Your task to perform on an android device: add a label to a message in the gmail app Image 0: 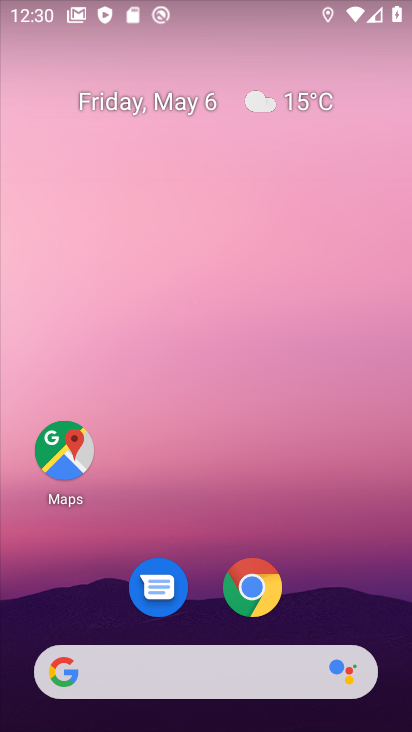
Step 0: drag from (330, 614) to (303, 0)
Your task to perform on an android device: add a label to a message in the gmail app Image 1: 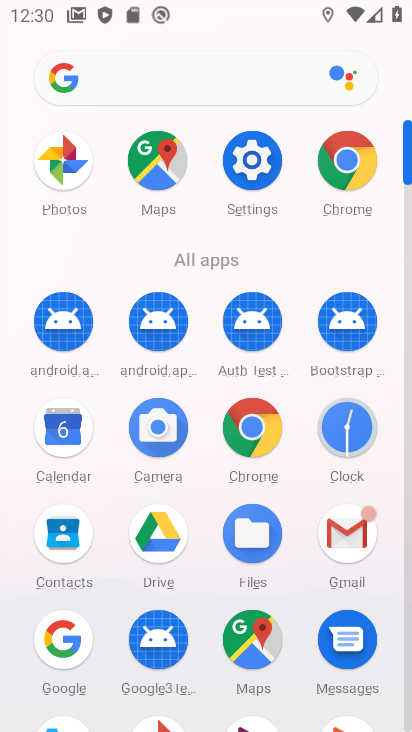
Step 1: click (346, 531)
Your task to perform on an android device: add a label to a message in the gmail app Image 2: 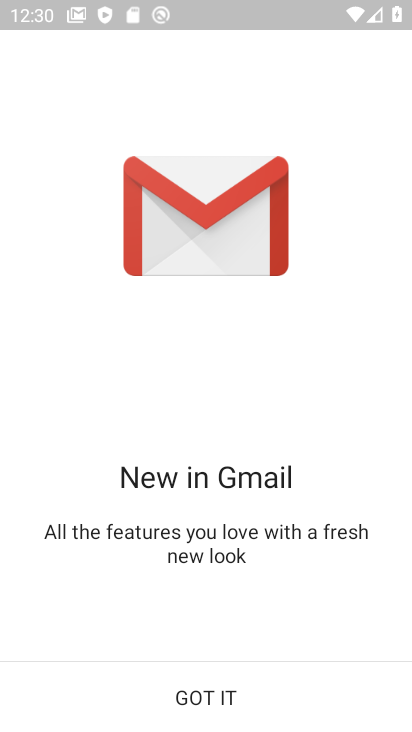
Step 2: click (212, 697)
Your task to perform on an android device: add a label to a message in the gmail app Image 3: 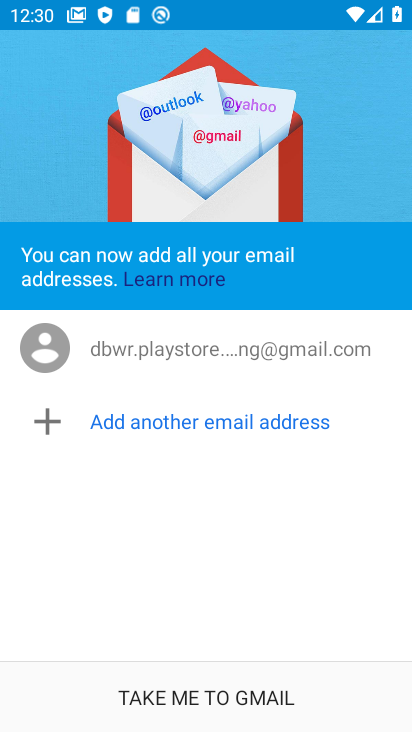
Step 3: click (196, 695)
Your task to perform on an android device: add a label to a message in the gmail app Image 4: 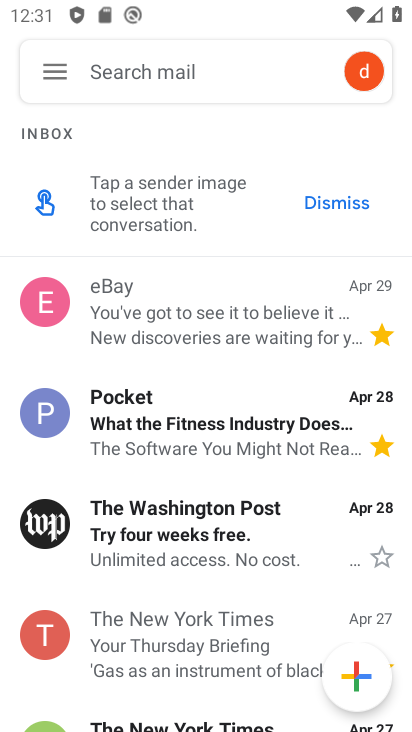
Step 4: click (166, 308)
Your task to perform on an android device: add a label to a message in the gmail app Image 5: 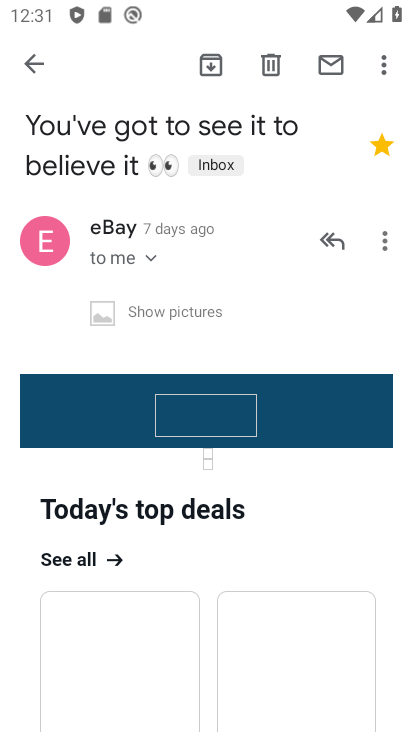
Step 5: click (32, 71)
Your task to perform on an android device: add a label to a message in the gmail app Image 6: 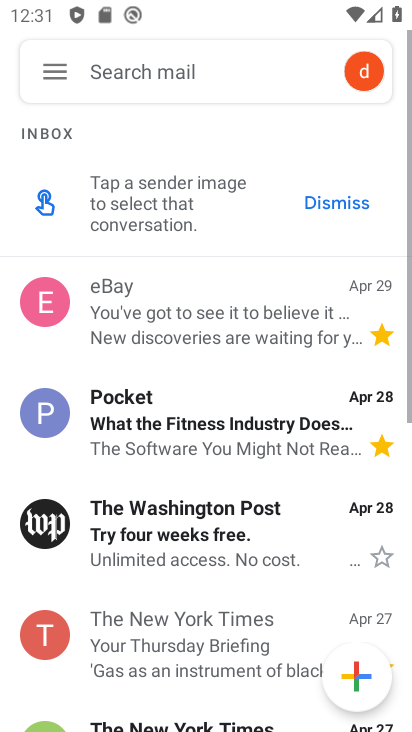
Step 6: drag from (254, 506) to (270, 317)
Your task to perform on an android device: add a label to a message in the gmail app Image 7: 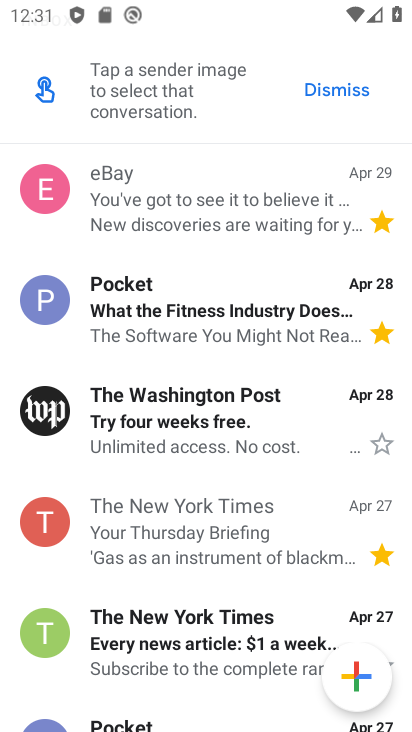
Step 7: click (219, 367)
Your task to perform on an android device: add a label to a message in the gmail app Image 8: 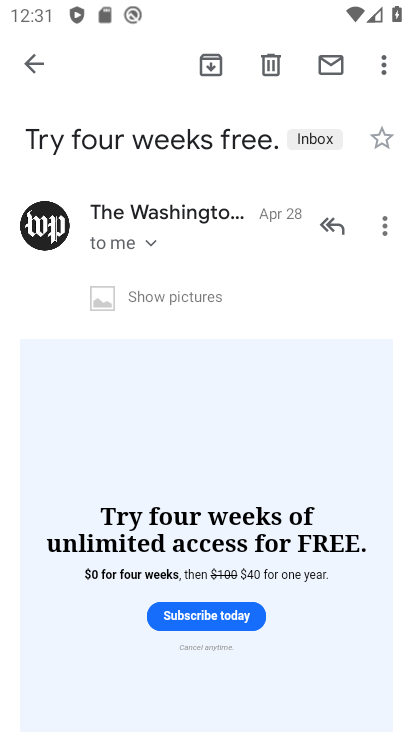
Step 8: click (34, 66)
Your task to perform on an android device: add a label to a message in the gmail app Image 9: 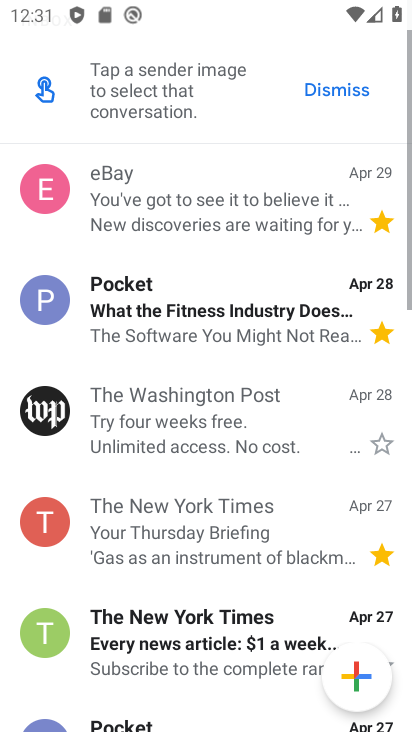
Step 9: drag from (152, 592) to (235, 220)
Your task to perform on an android device: add a label to a message in the gmail app Image 10: 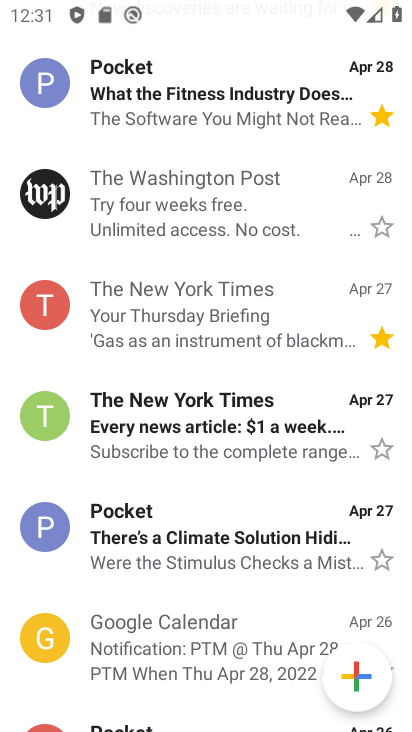
Step 10: click (172, 645)
Your task to perform on an android device: add a label to a message in the gmail app Image 11: 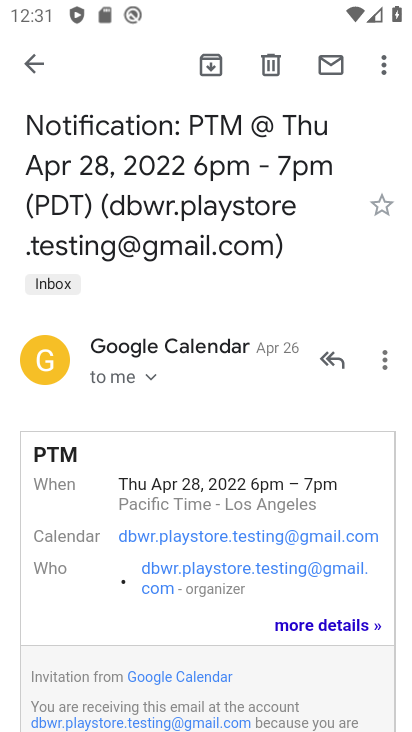
Step 11: click (23, 64)
Your task to perform on an android device: add a label to a message in the gmail app Image 12: 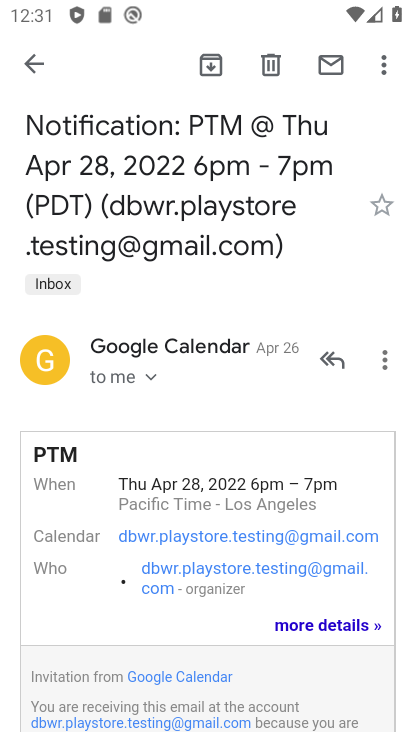
Step 12: click (32, 65)
Your task to perform on an android device: add a label to a message in the gmail app Image 13: 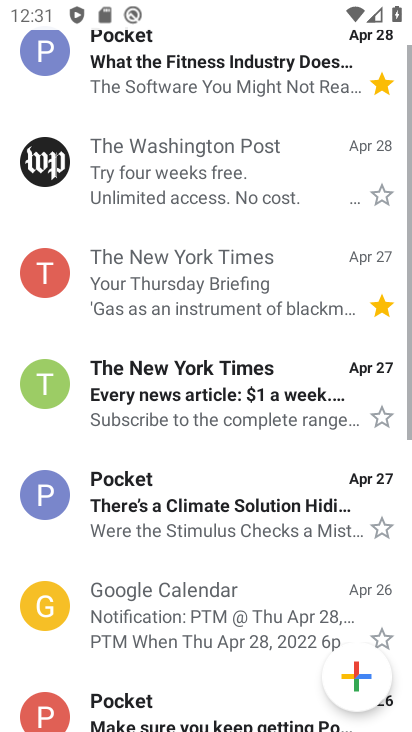
Step 13: drag from (187, 597) to (253, 133)
Your task to perform on an android device: add a label to a message in the gmail app Image 14: 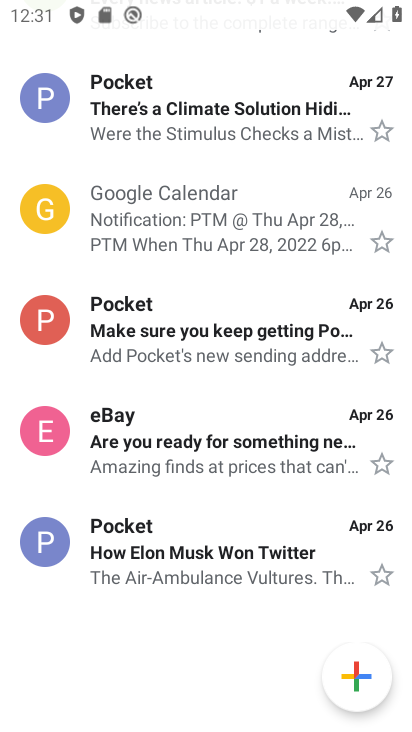
Step 14: click (176, 212)
Your task to perform on an android device: add a label to a message in the gmail app Image 15: 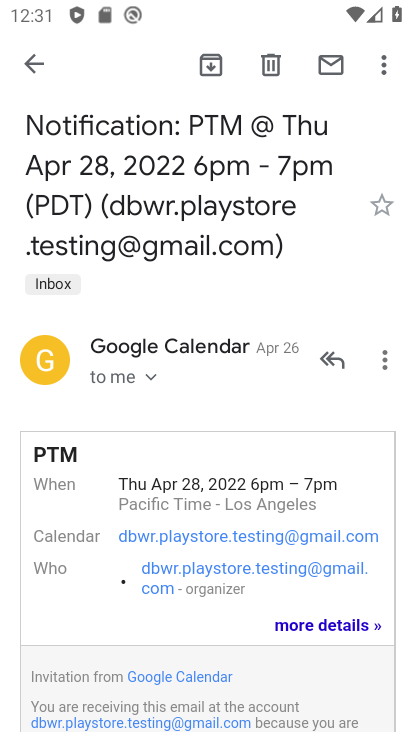
Step 15: click (29, 66)
Your task to perform on an android device: add a label to a message in the gmail app Image 16: 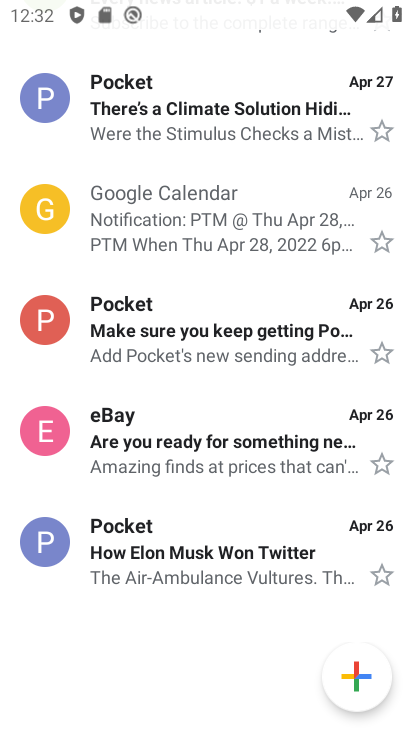
Step 16: click (163, 333)
Your task to perform on an android device: add a label to a message in the gmail app Image 17: 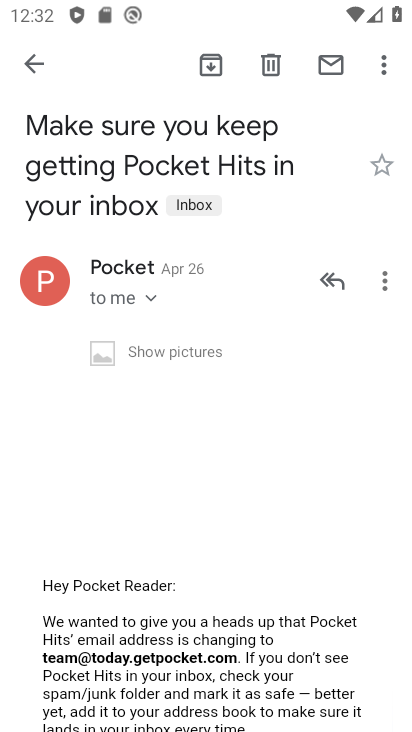
Step 17: click (27, 53)
Your task to perform on an android device: add a label to a message in the gmail app Image 18: 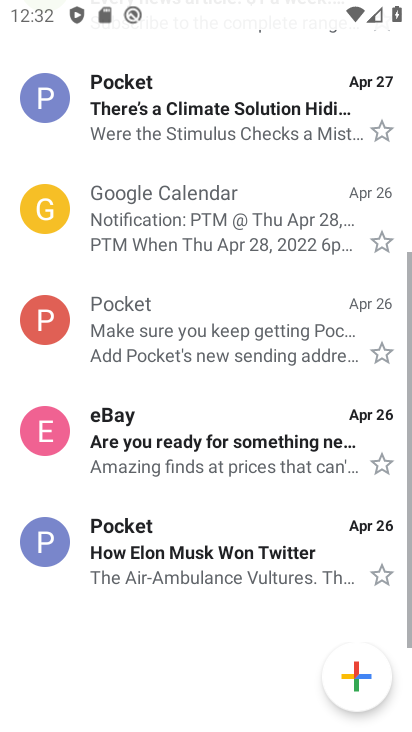
Step 18: click (171, 455)
Your task to perform on an android device: add a label to a message in the gmail app Image 19: 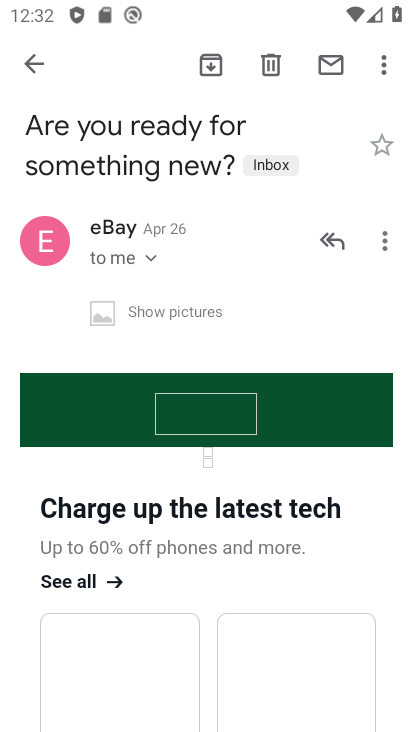
Step 19: click (31, 64)
Your task to perform on an android device: add a label to a message in the gmail app Image 20: 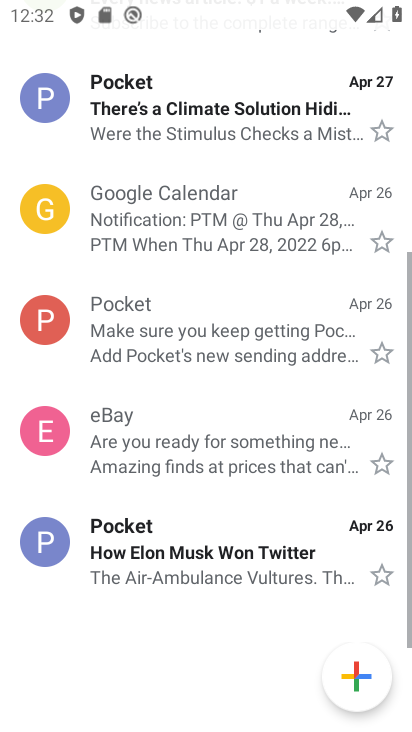
Step 20: click (125, 545)
Your task to perform on an android device: add a label to a message in the gmail app Image 21: 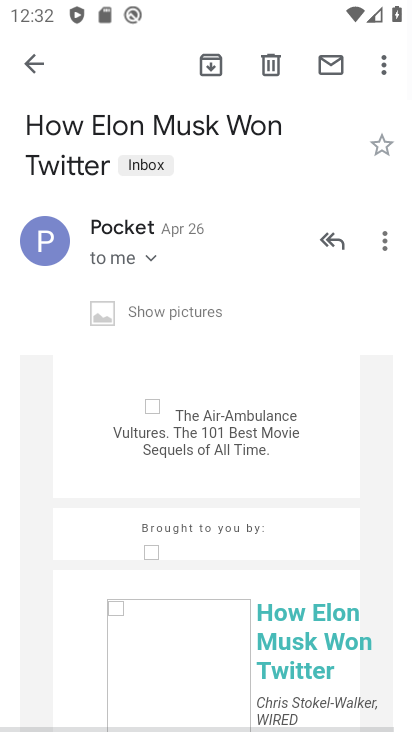
Step 21: click (27, 58)
Your task to perform on an android device: add a label to a message in the gmail app Image 22: 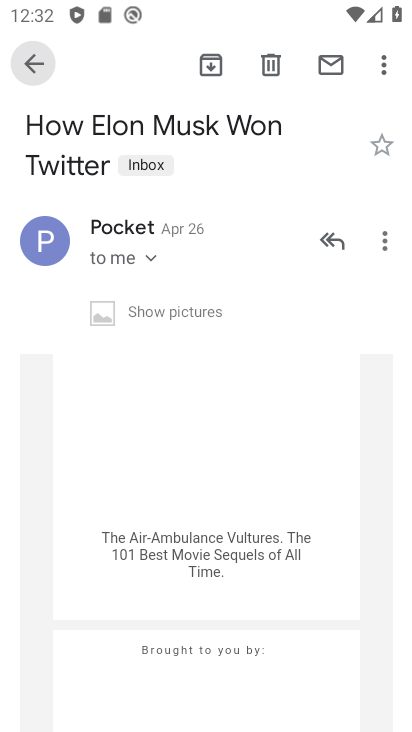
Step 22: click (27, 58)
Your task to perform on an android device: add a label to a message in the gmail app Image 23: 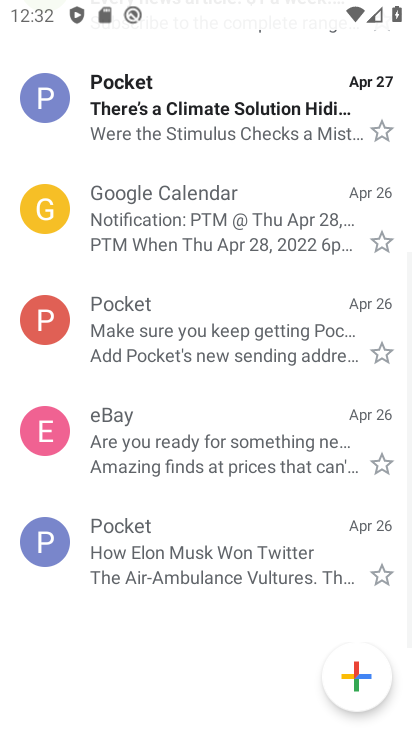
Step 23: press back button
Your task to perform on an android device: add a label to a message in the gmail app Image 24: 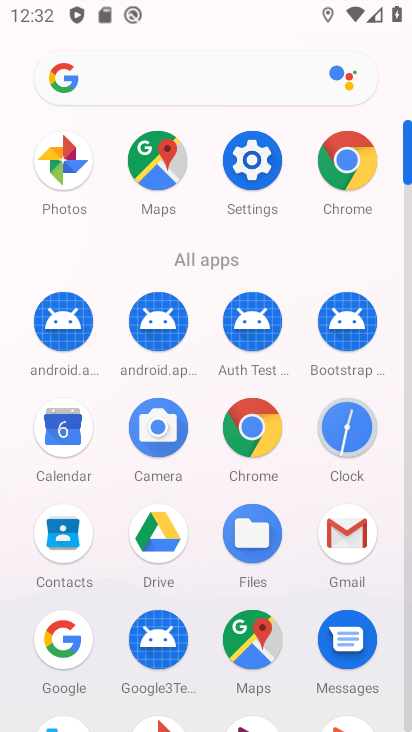
Step 24: click (347, 545)
Your task to perform on an android device: add a label to a message in the gmail app Image 25: 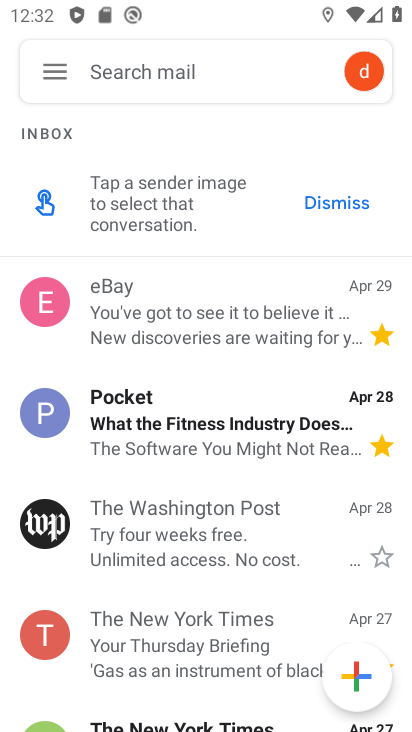
Step 25: drag from (162, 599) to (217, 242)
Your task to perform on an android device: add a label to a message in the gmail app Image 26: 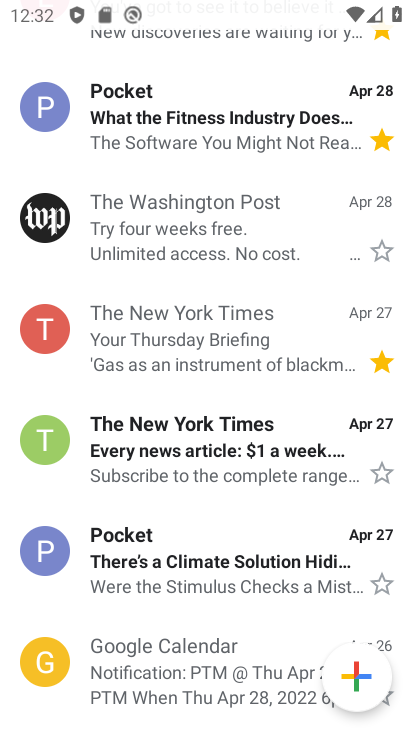
Step 26: drag from (183, 598) to (260, 203)
Your task to perform on an android device: add a label to a message in the gmail app Image 27: 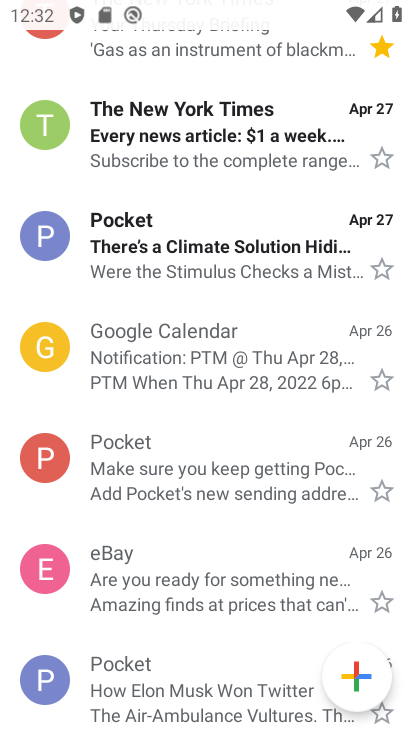
Step 27: drag from (195, 588) to (270, 206)
Your task to perform on an android device: add a label to a message in the gmail app Image 28: 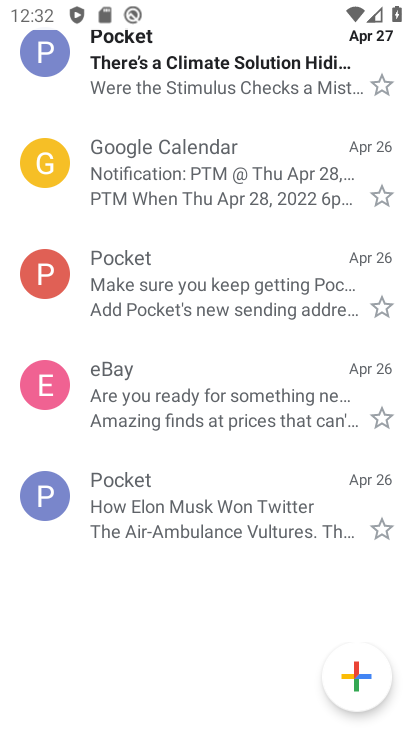
Step 28: click (198, 501)
Your task to perform on an android device: add a label to a message in the gmail app Image 29: 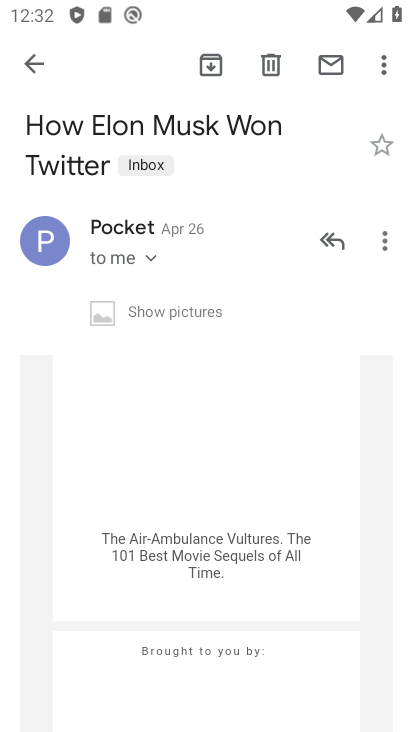
Step 29: click (36, 59)
Your task to perform on an android device: add a label to a message in the gmail app Image 30: 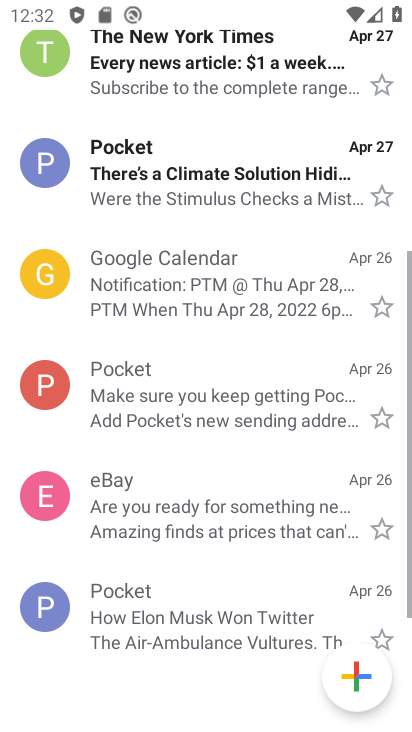
Step 30: drag from (172, 88) to (167, 725)
Your task to perform on an android device: add a label to a message in the gmail app Image 31: 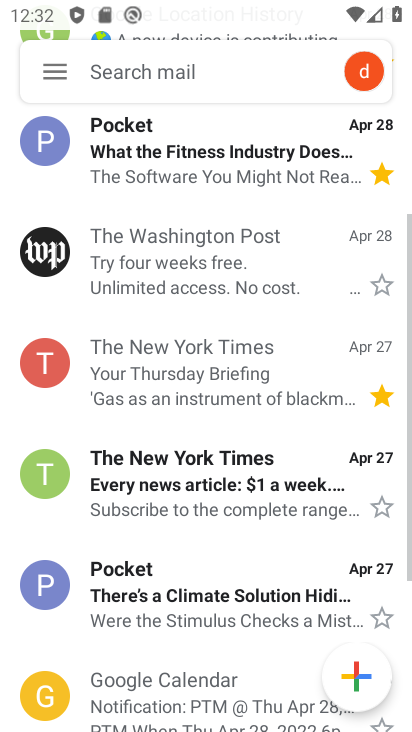
Step 31: drag from (169, 112) to (120, 596)
Your task to perform on an android device: add a label to a message in the gmail app Image 32: 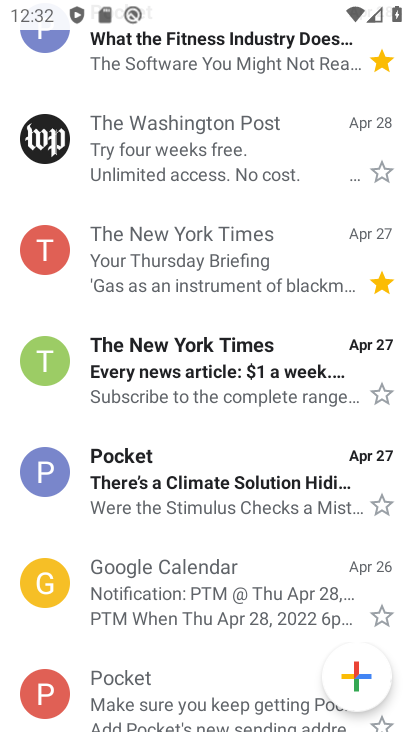
Step 32: click (47, 61)
Your task to perform on an android device: add a label to a message in the gmail app Image 33: 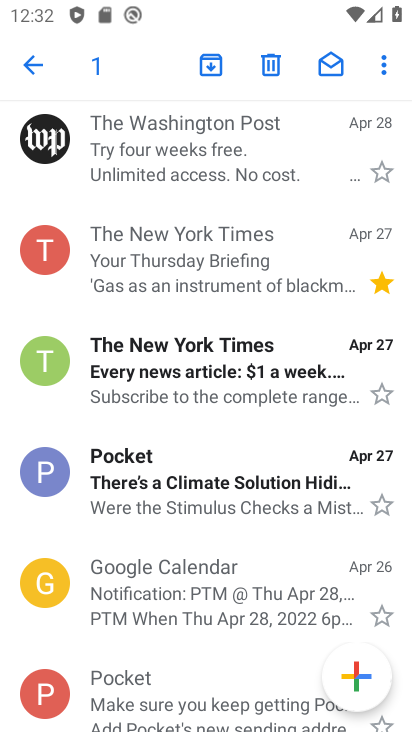
Step 33: click (33, 68)
Your task to perform on an android device: add a label to a message in the gmail app Image 34: 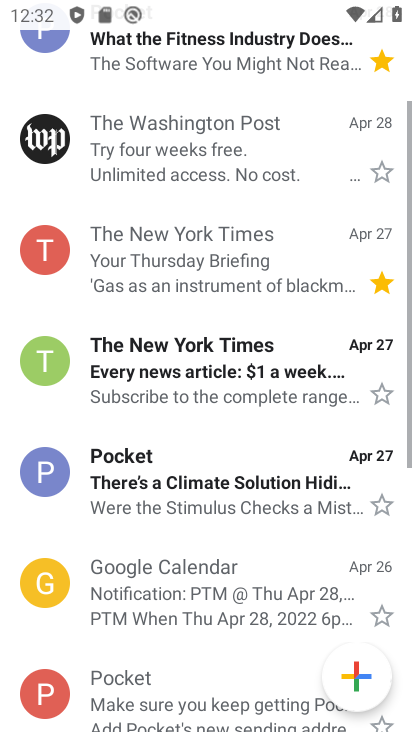
Step 34: drag from (207, 149) to (155, 641)
Your task to perform on an android device: add a label to a message in the gmail app Image 35: 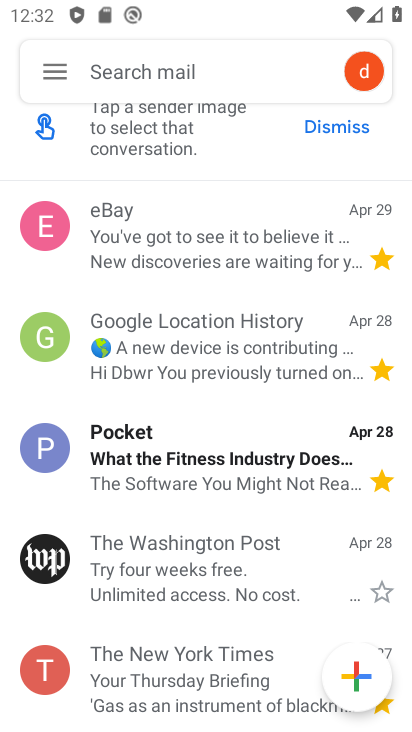
Step 35: click (57, 76)
Your task to perform on an android device: add a label to a message in the gmail app Image 36: 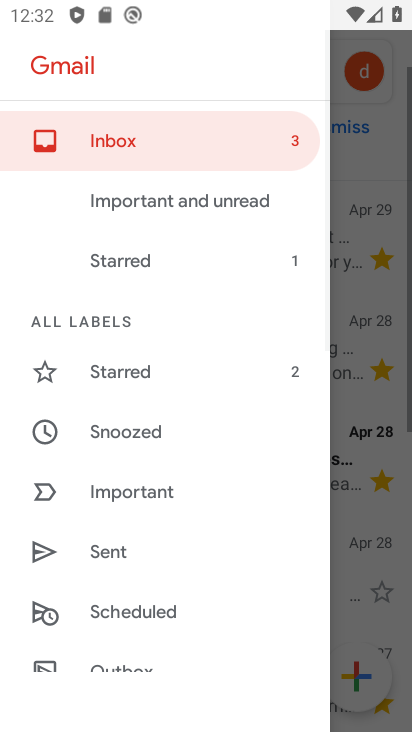
Step 36: drag from (188, 581) to (186, 48)
Your task to perform on an android device: add a label to a message in the gmail app Image 37: 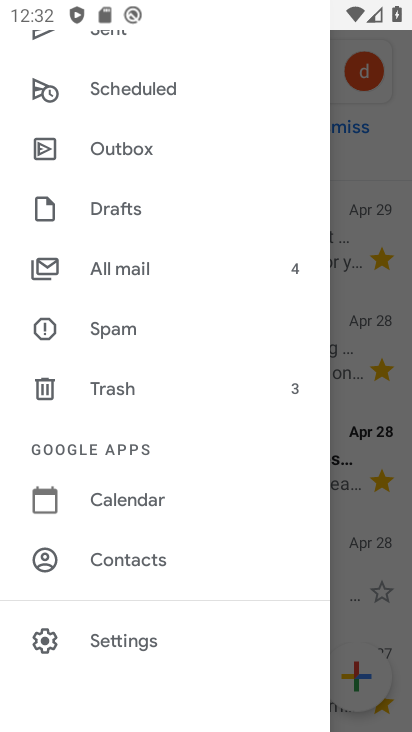
Step 37: click (146, 267)
Your task to perform on an android device: add a label to a message in the gmail app Image 38: 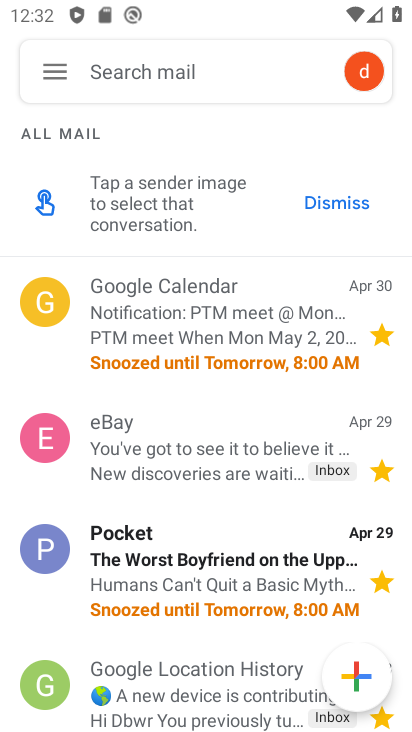
Step 38: click (209, 447)
Your task to perform on an android device: add a label to a message in the gmail app Image 39: 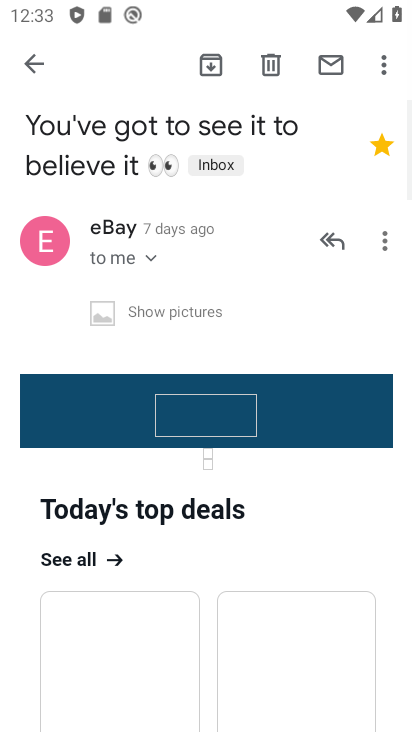
Step 39: click (31, 67)
Your task to perform on an android device: add a label to a message in the gmail app Image 40: 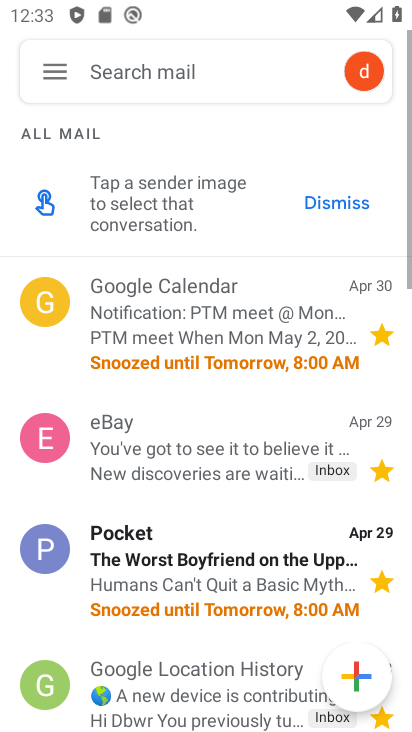
Step 40: drag from (207, 566) to (277, 263)
Your task to perform on an android device: add a label to a message in the gmail app Image 41: 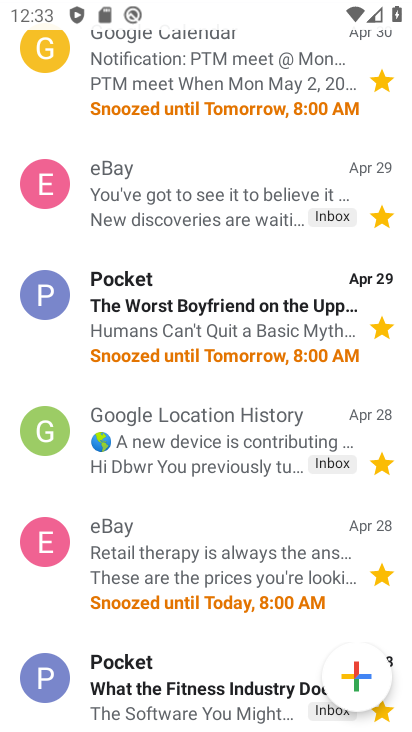
Step 41: drag from (220, 546) to (246, 318)
Your task to perform on an android device: add a label to a message in the gmail app Image 42: 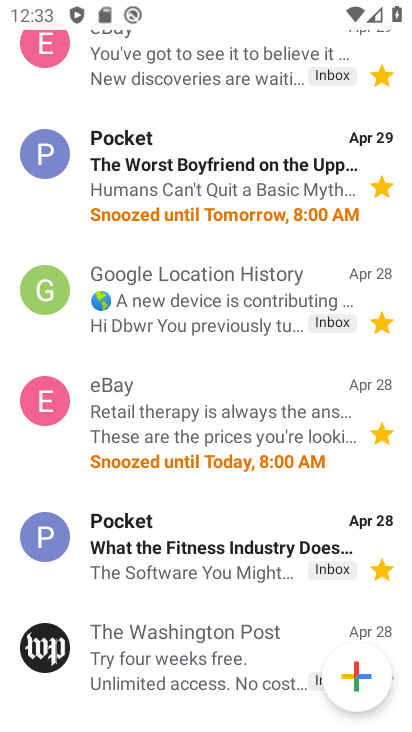
Step 42: drag from (202, 575) to (272, 268)
Your task to perform on an android device: add a label to a message in the gmail app Image 43: 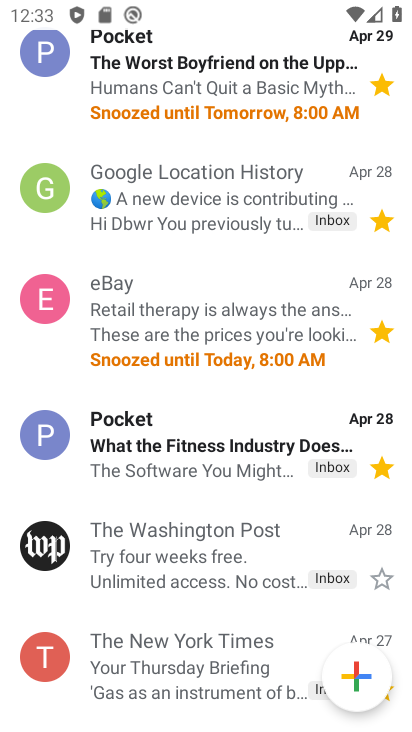
Step 43: drag from (228, 610) to (253, 211)
Your task to perform on an android device: add a label to a message in the gmail app Image 44: 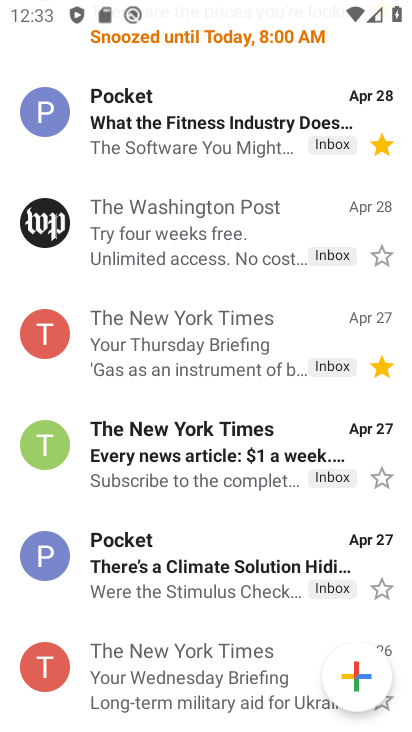
Step 44: drag from (253, 268) to (243, 225)
Your task to perform on an android device: add a label to a message in the gmail app Image 45: 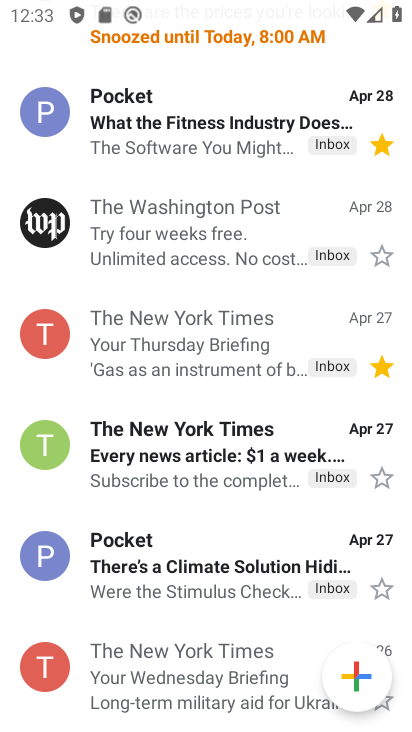
Step 45: drag from (192, 667) to (223, 334)
Your task to perform on an android device: add a label to a message in the gmail app Image 46: 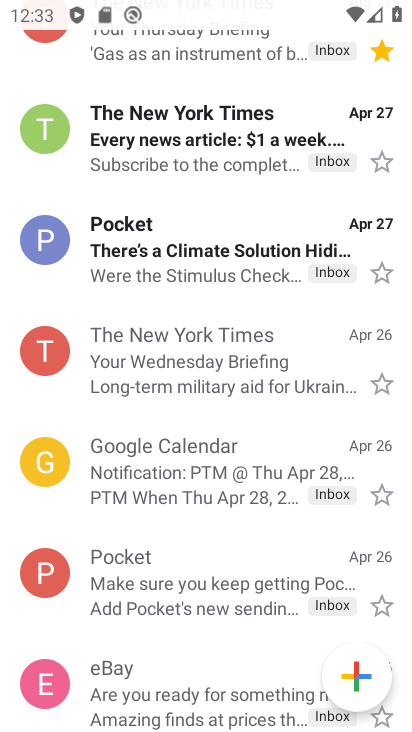
Step 46: click (210, 367)
Your task to perform on an android device: add a label to a message in the gmail app Image 47: 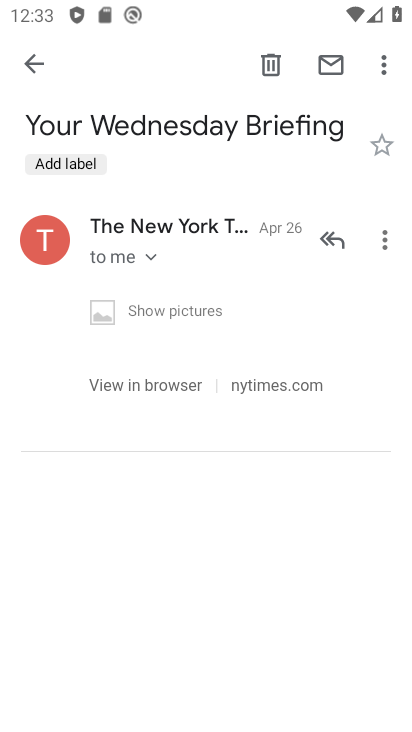
Step 47: click (63, 154)
Your task to perform on an android device: add a label to a message in the gmail app Image 48: 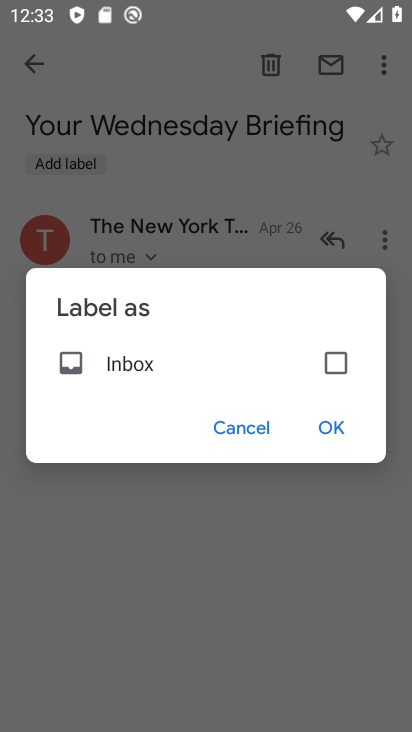
Step 48: click (337, 365)
Your task to perform on an android device: add a label to a message in the gmail app Image 49: 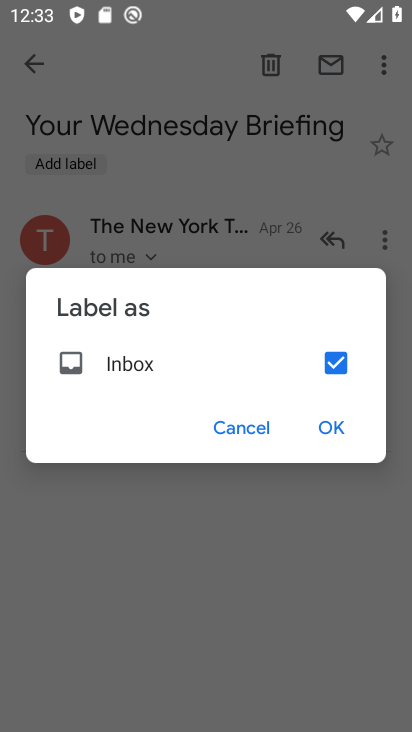
Step 49: click (338, 428)
Your task to perform on an android device: add a label to a message in the gmail app Image 50: 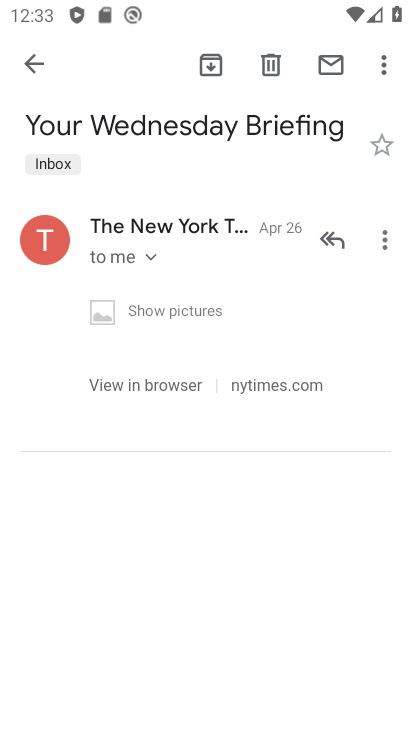
Step 50: task complete